Your task to perform on an android device: turn off data saver in the chrome app Image 0: 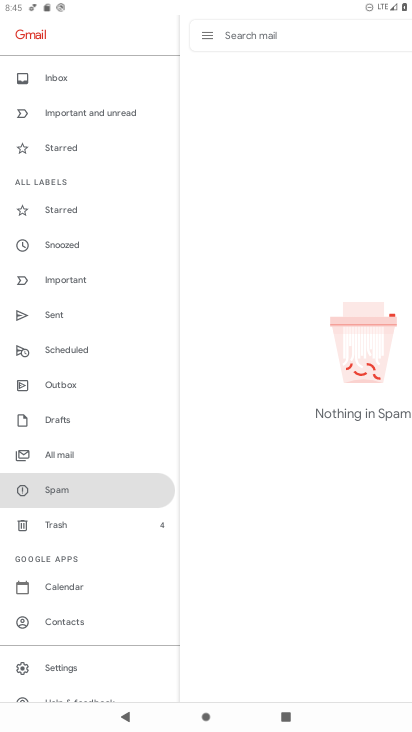
Step 0: press home button
Your task to perform on an android device: turn off data saver in the chrome app Image 1: 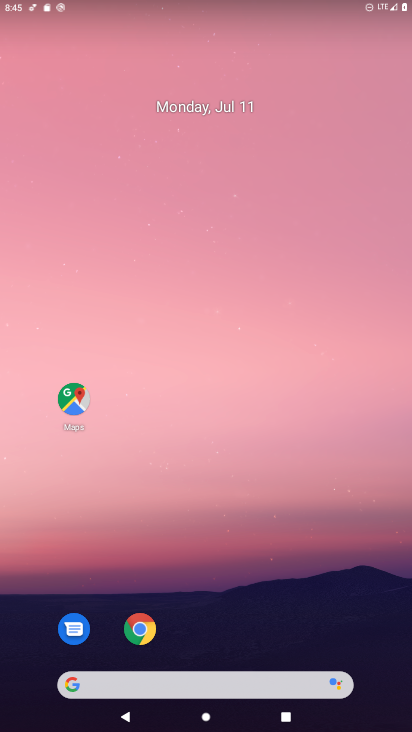
Step 1: click (134, 631)
Your task to perform on an android device: turn off data saver in the chrome app Image 2: 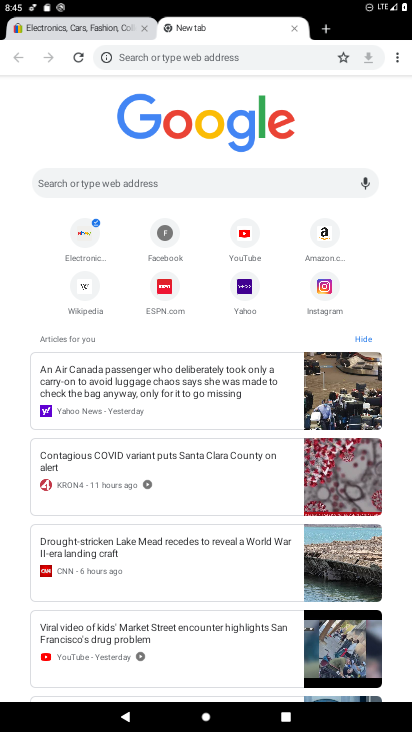
Step 2: click (401, 53)
Your task to perform on an android device: turn off data saver in the chrome app Image 3: 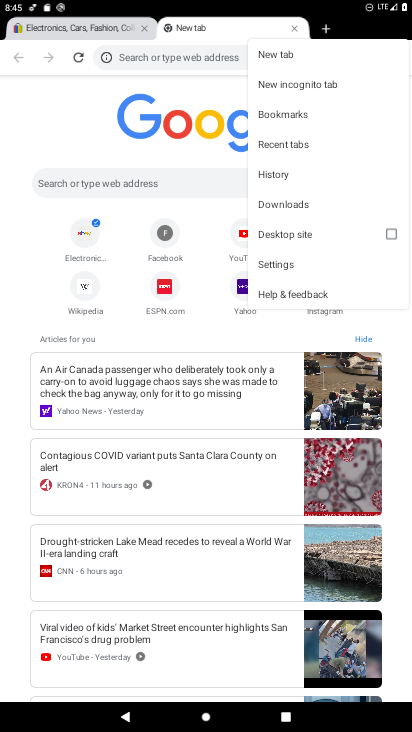
Step 3: click (280, 264)
Your task to perform on an android device: turn off data saver in the chrome app Image 4: 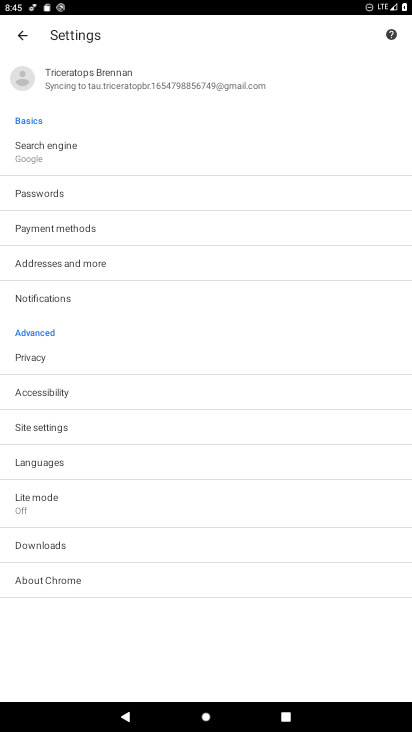
Step 4: click (42, 499)
Your task to perform on an android device: turn off data saver in the chrome app Image 5: 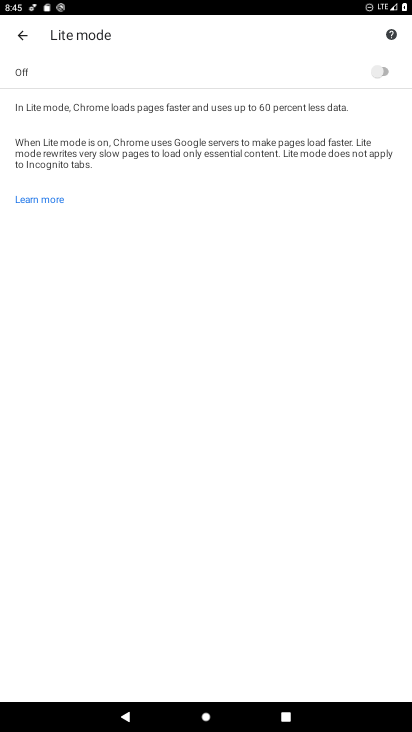
Step 5: task complete